Your task to perform on an android device: Open calendar and show me the fourth week of next month Image 0: 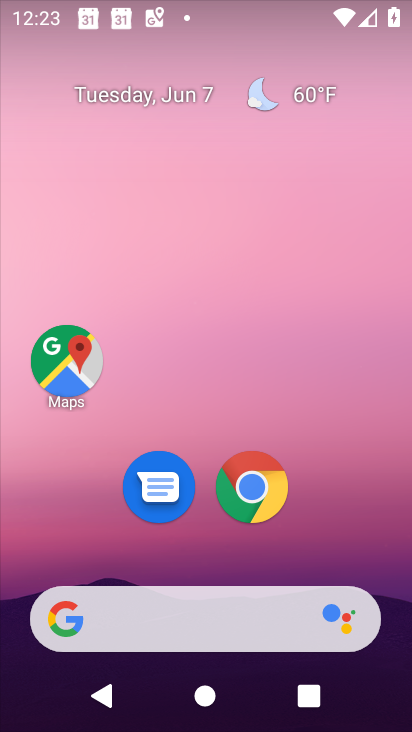
Step 0: drag from (360, 554) to (302, 141)
Your task to perform on an android device: Open calendar and show me the fourth week of next month Image 1: 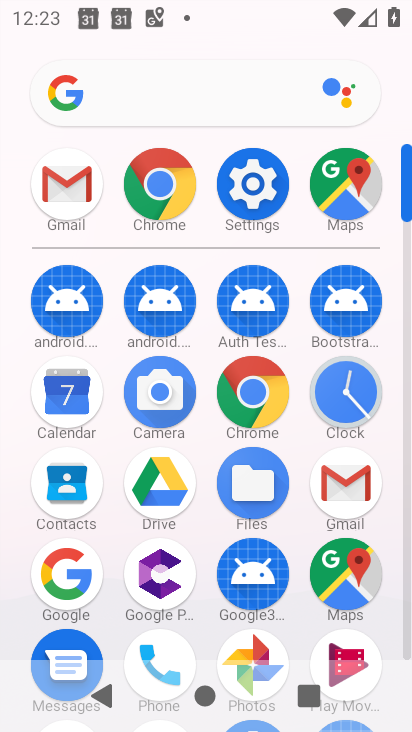
Step 1: click (69, 395)
Your task to perform on an android device: Open calendar and show me the fourth week of next month Image 2: 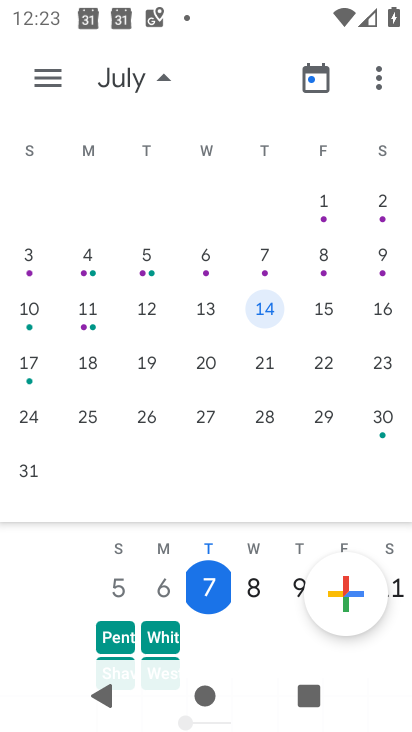
Step 2: click (260, 419)
Your task to perform on an android device: Open calendar and show me the fourth week of next month Image 3: 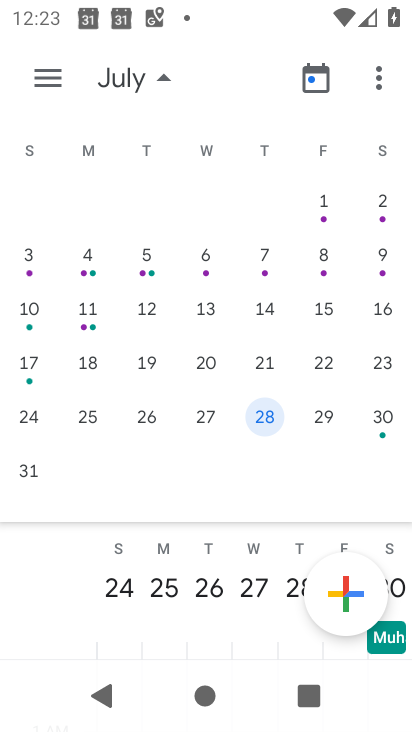
Step 3: task complete